Your task to perform on an android device: Search for seafood restaurants on Google Maps Image 0: 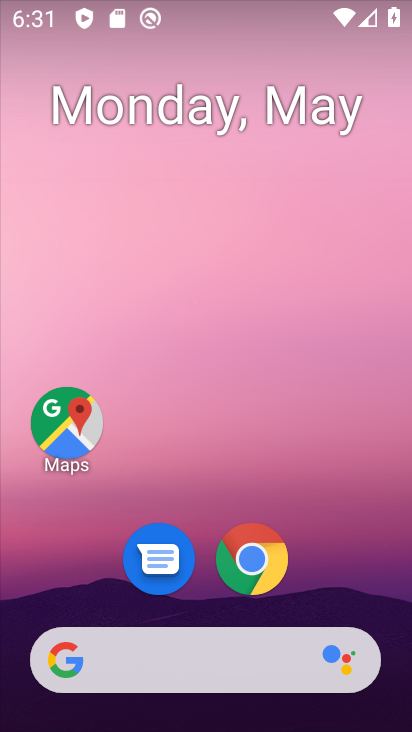
Step 0: drag from (400, 648) to (411, 602)
Your task to perform on an android device: Search for seafood restaurants on Google Maps Image 1: 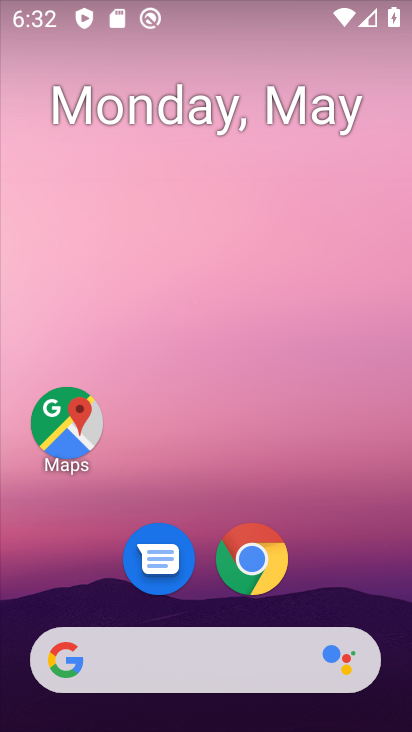
Step 1: click (342, 614)
Your task to perform on an android device: Search for seafood restaurants on Google Maps Image 2: 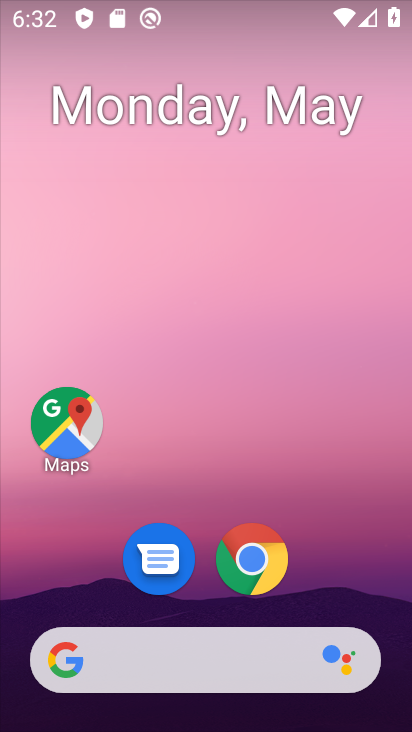
Step 2: drag from (344, 604) to (278, 20)
Your task to perform on an android device: Search for seafood restaurants on Google Maps Image 3: 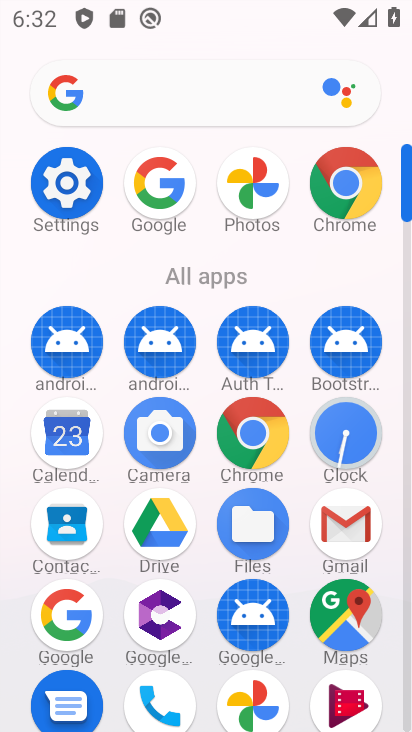
Step 3: click (341, 589)
Your task to perform on an android device: Search for seafood restaurants on Google Maps Image 4: 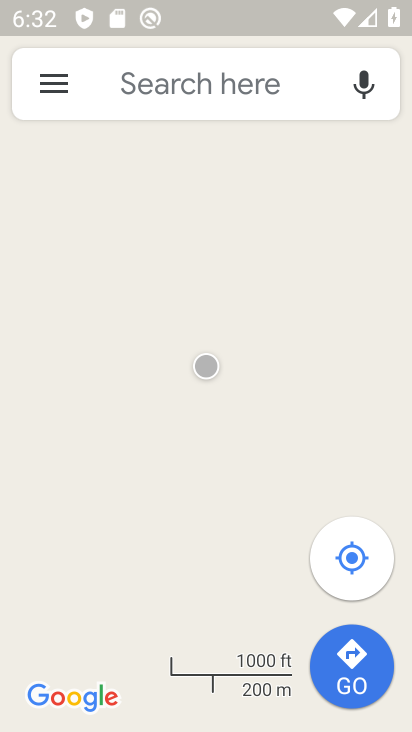
Step 4: click (160, 74)
Your task to perform on an android device: Search for seafood restaurants on Google Maps Image 5: 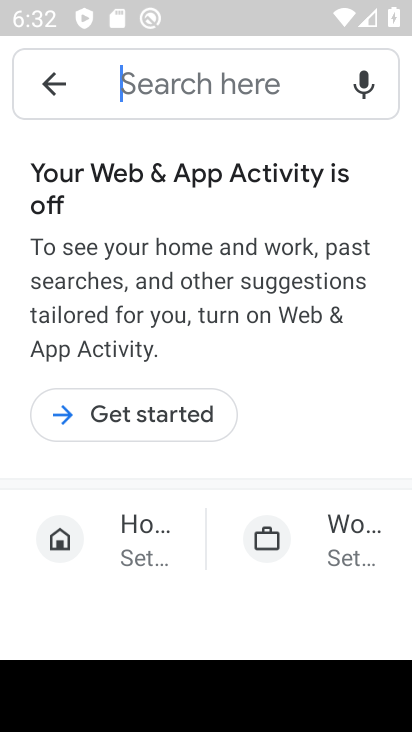
Step 5: click (158, 394)
Your task to perform on an android device: Search for seafood restaurants on Google Maps Image 6: 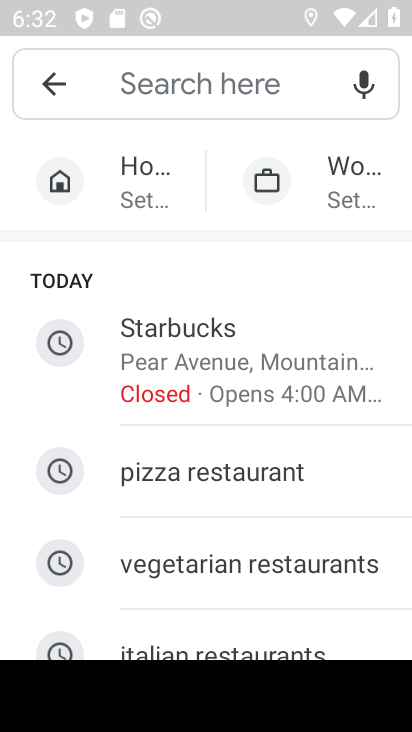
Step 6: drag from (200, 608) to (280, 235)
Your task to perform on an android device: Search for seafood restaurants on Google Maps Image 7: 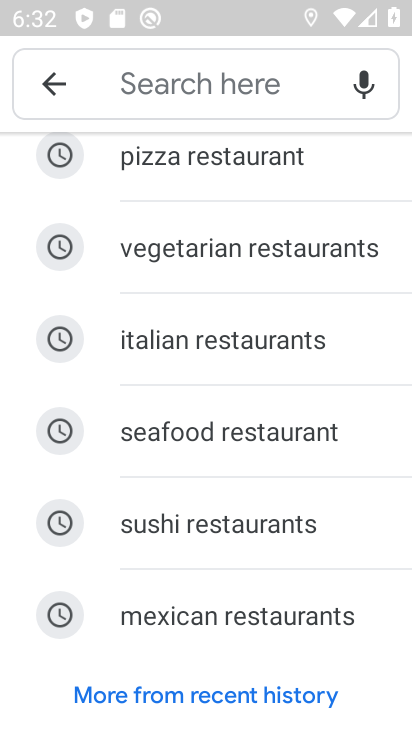
Step 7: click (196, 454)
Your task to perform on an android device: Search for seafood restaurants on Google Maps Image 8: 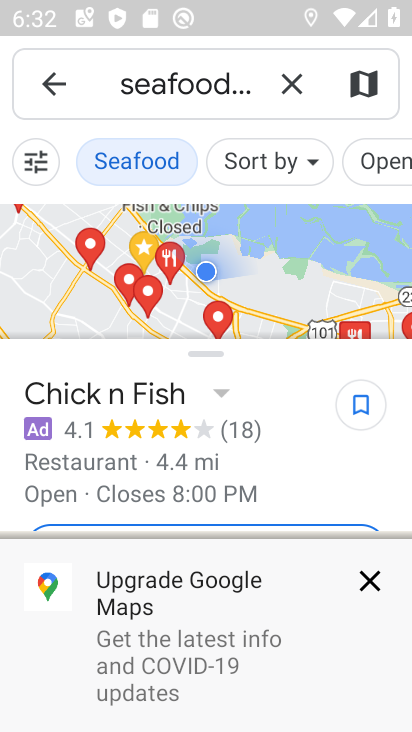
Step 8: task complete